Your task to perform on an android device: What's the weather? Image 0: 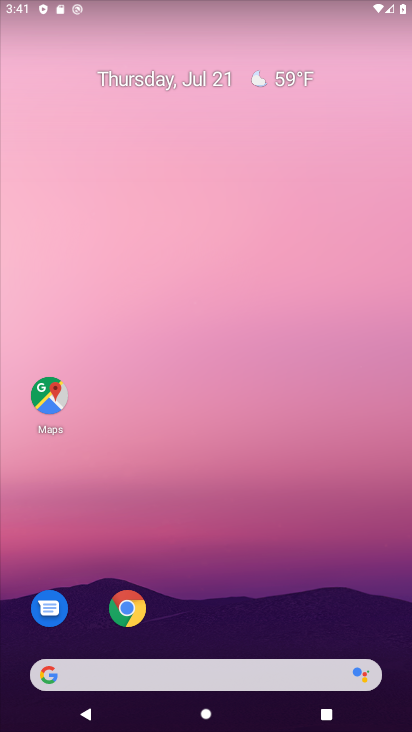
Step 0: drag from (268, 571) to (357, 47)
Your task to perform on an android device: What's the weather? Image 1: 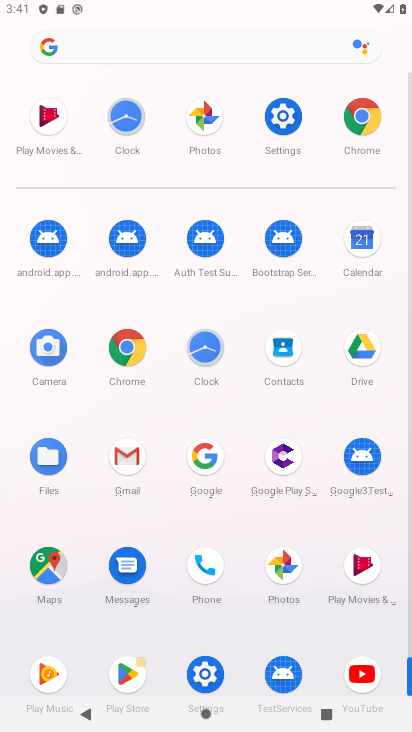
Step 1: click (128, 349)
Your task to perform on an android device: What's the weather? Image 2: 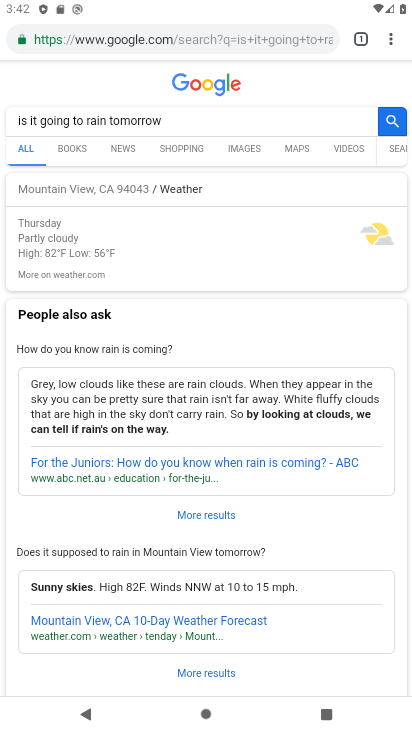
Step 2: click (172, 38)
Your task to perform on an android device: What's the weather? Image 3: 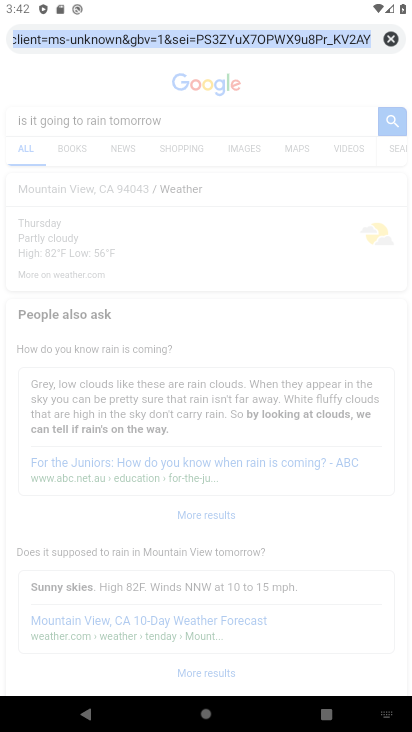
Step 3: type "whats the weather"
Your task to perform on an android device: What's the weather? Image 4: 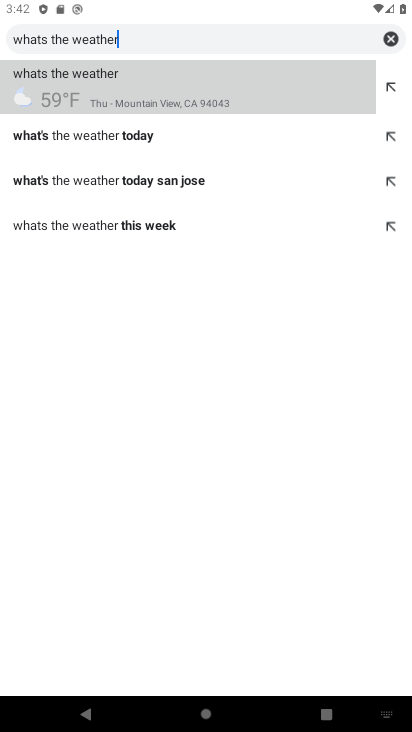
Step 4: click (214, 77)
Your task to perform on an android device: What's the weather? Image 5: 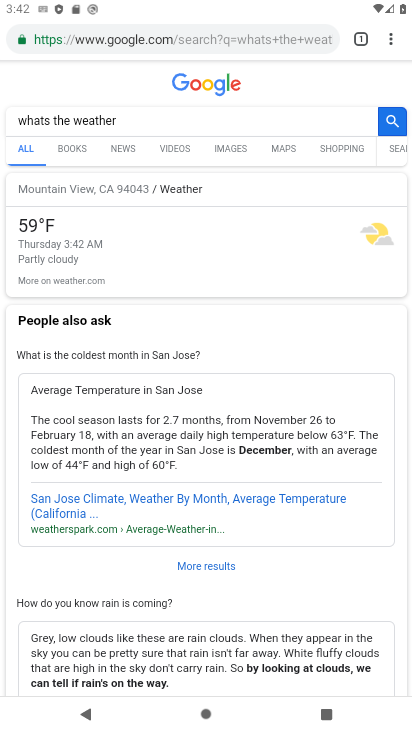
Step 5: task complete